Your task to perform on an android device: What's the price of the LG TV? Image 0: 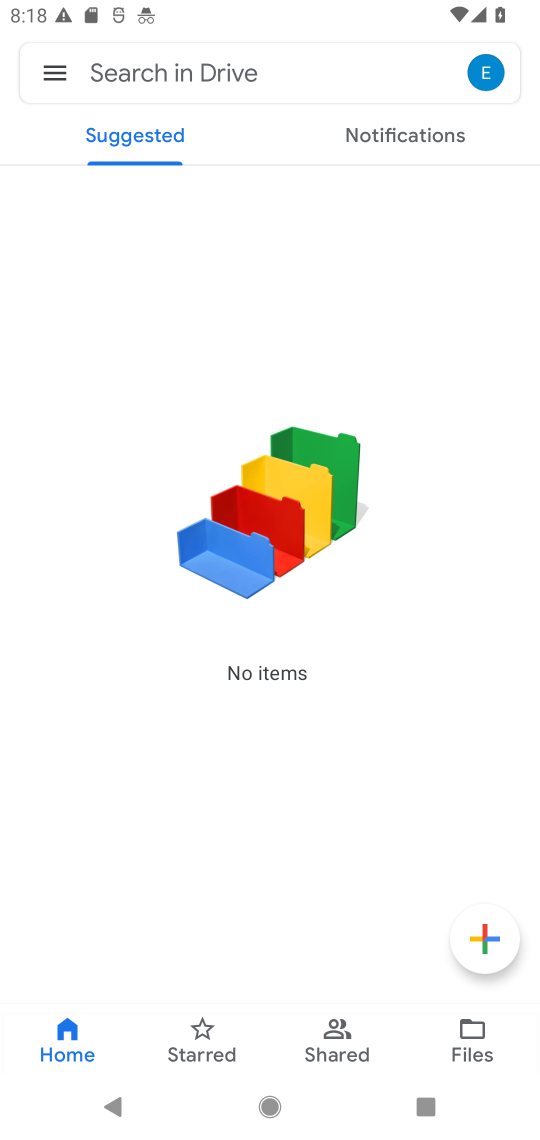
Step 0: press home button
Your task to perform on an android device: What's the price of the LG TV? Image 1: 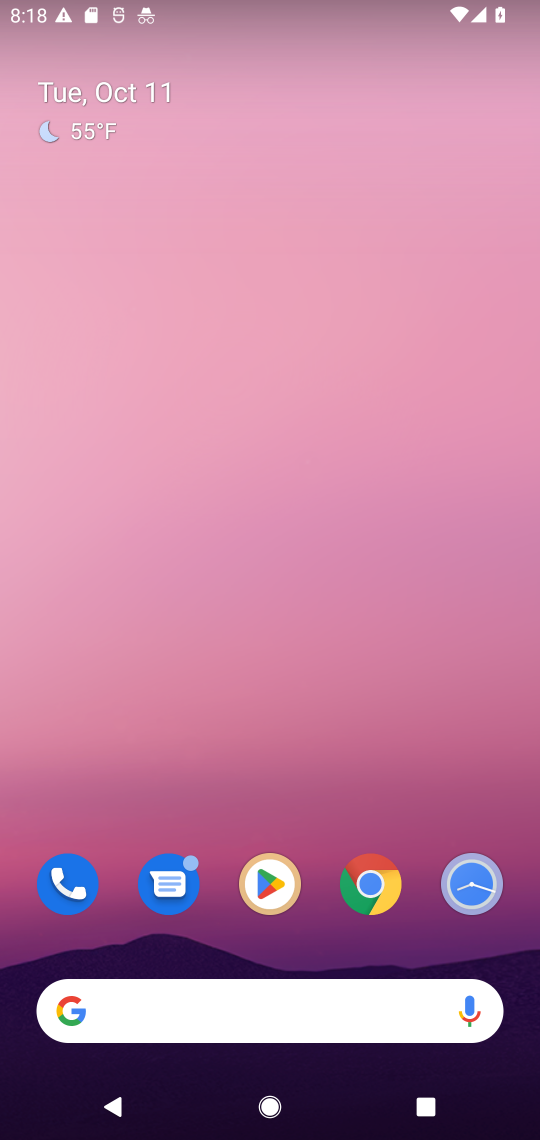
Step 1: drag from (310, 976) to (242, 160)
Your task to perform on an android device: What's the price of the LG TV? Image 2: 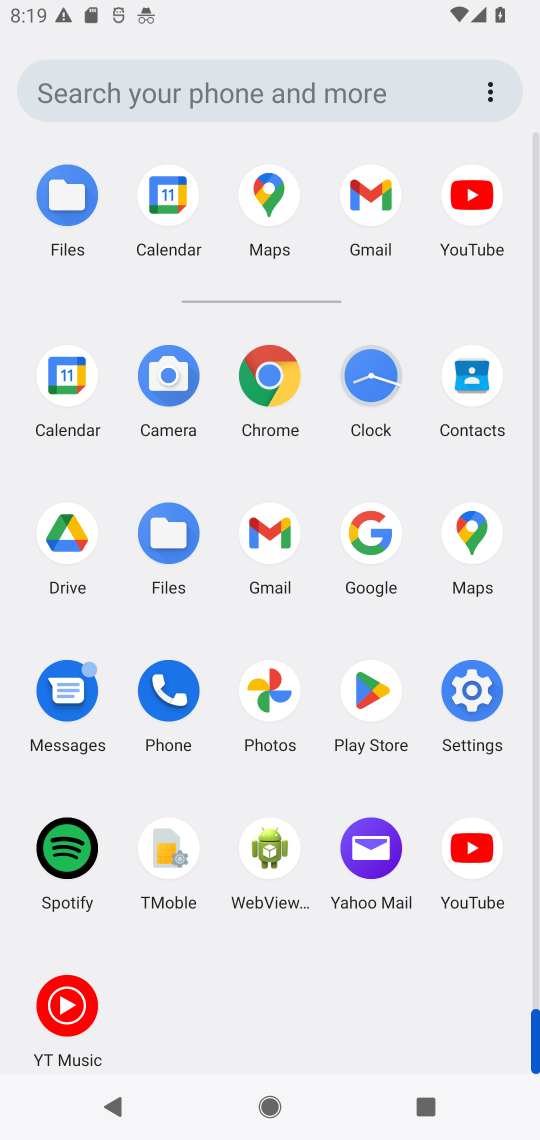
Step 2: click (378, 521)
Your task to perform on an android device: What's the price of the LG TV? Image 3: 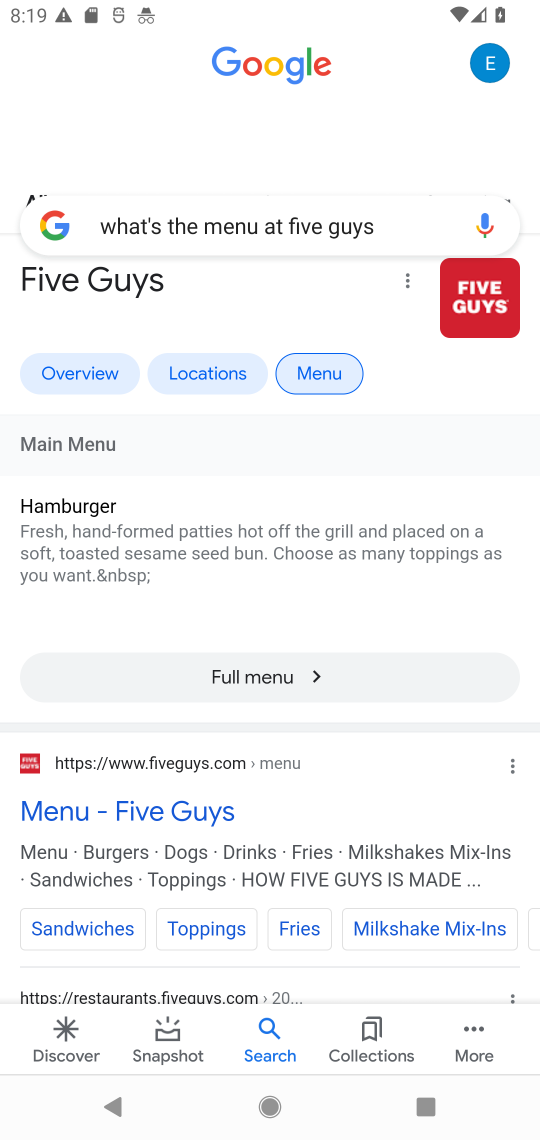
Step 3: click (305, 219)
Your task to perform on an android device: What's the price of the LG TV? Image 4: 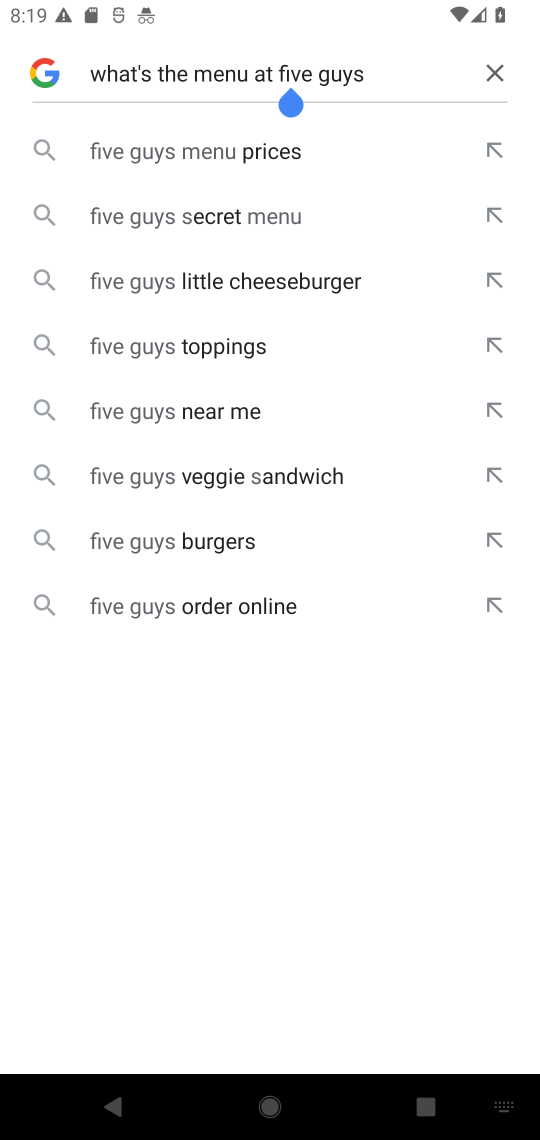
Step 4: click (483, 71)
Your task to perform on an android device: What's the price of the LG TV? Image 5: 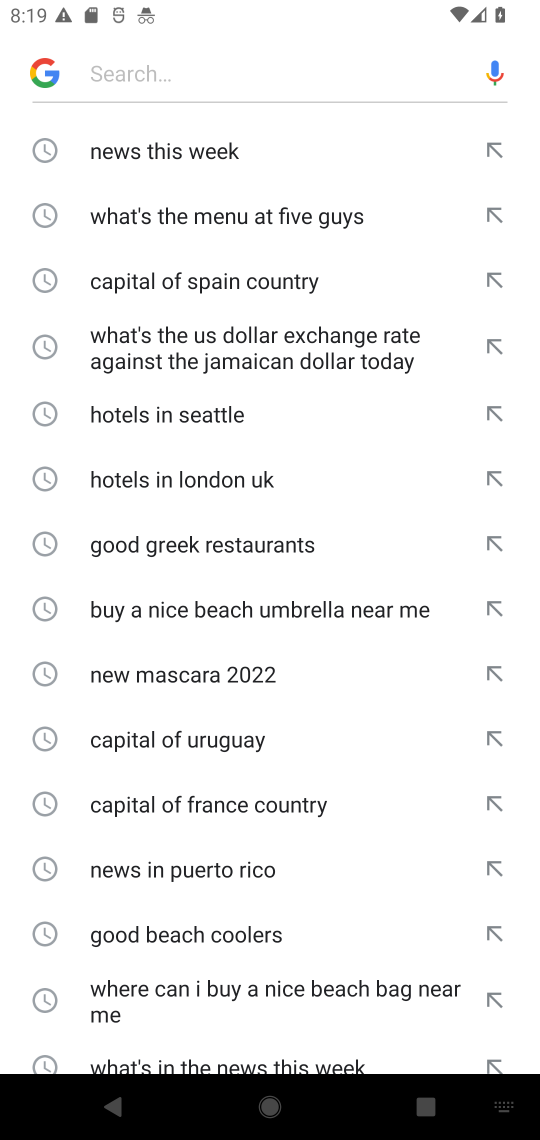
Step 5: type "What's the price of the LG TV?"
Your task to perform on an android device: What's the price of the LG TV? Image 6: 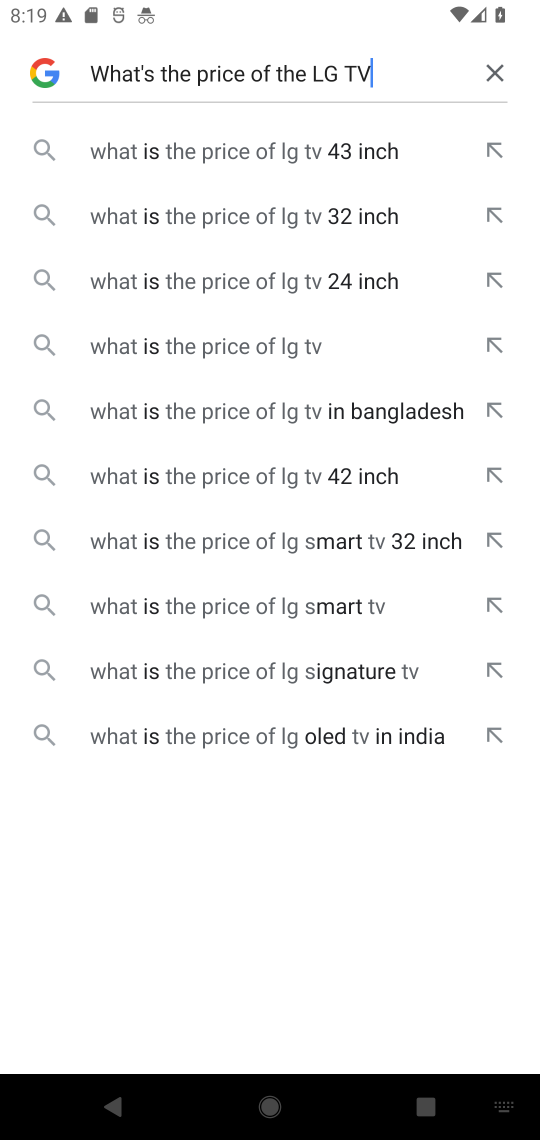
Step 6: type ""
Your task to perform on an android device: What's the price of the LG TV? Image 7: 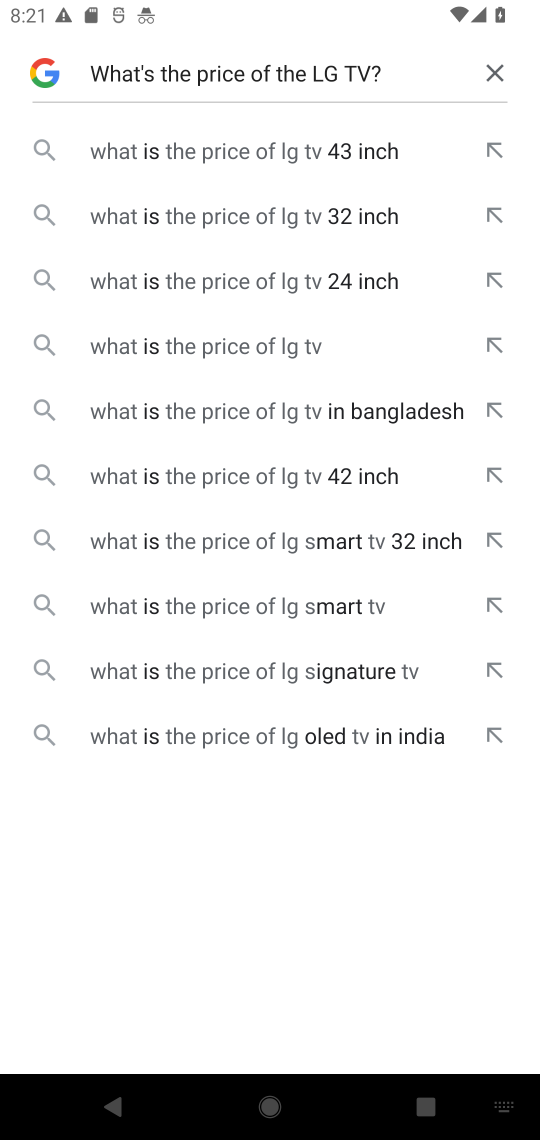
Step 7: click (209, 338)
Your task to perform on an android device: What's the price of the LG TV? Image 8: 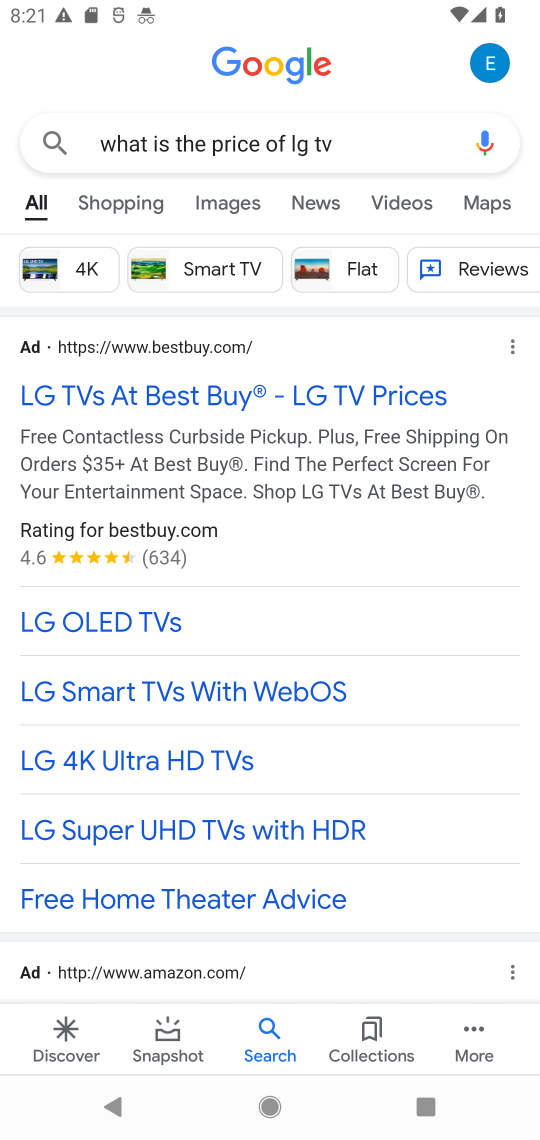
Step 8: click (203, 399)
Your task to perform on an android device: What's the price of the LG TV? Image 9: 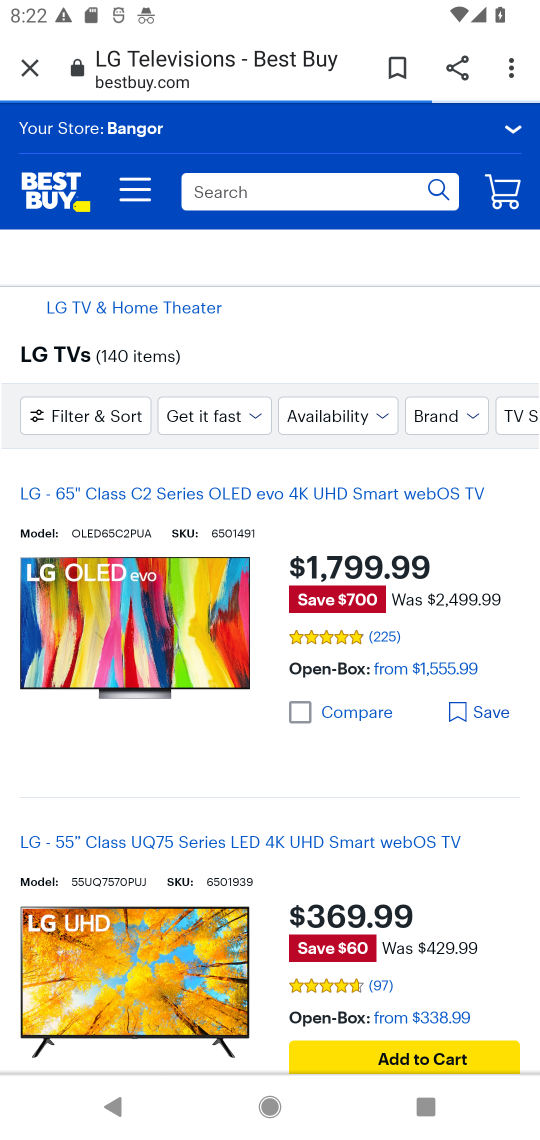
Step 9: task complete